Your task to perform on an android device: Open CNN.com Image 0: 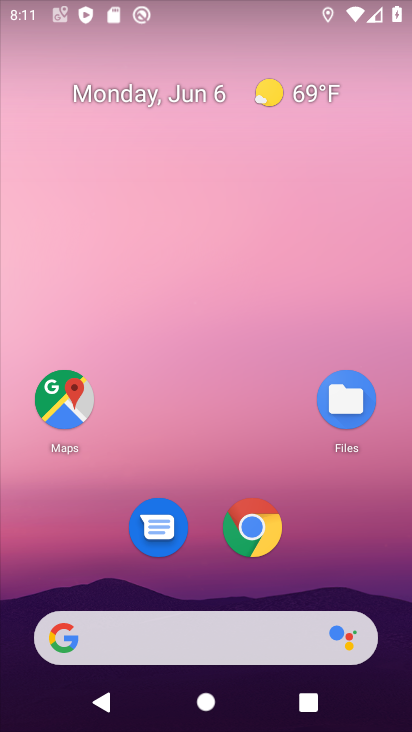
Step 0: drag from (295, 553) to (309, 20)
Your task to perform on an android device: Open CNN.com Image 1: 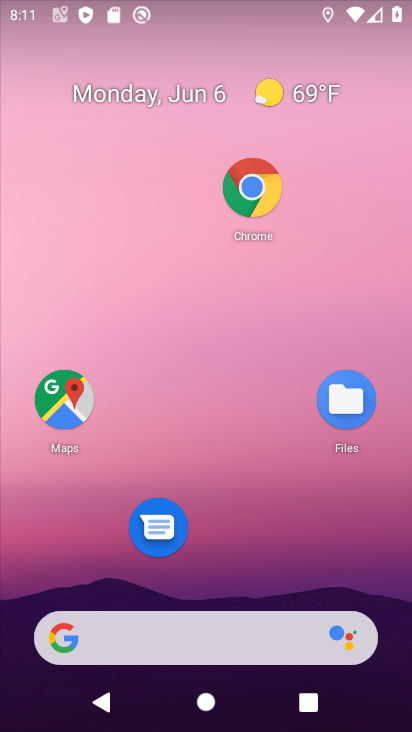
Step 1: drag from (206, 509) to (277, 0)
Your task to perform on an android device: Open CNN.com Image 2: 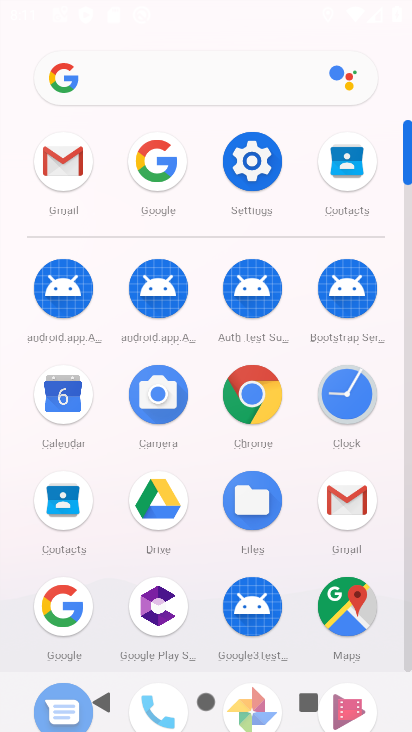
Step 2: click (152, 149)
Your task to perform on an android device: Open CNN.com Image 3: 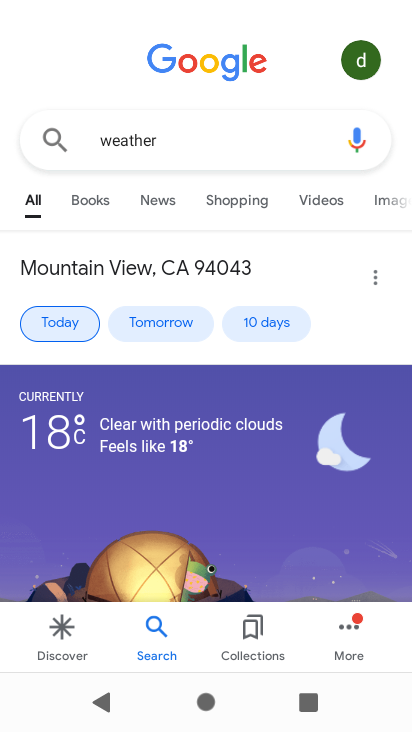
Step 3: click (238, 65)
Your task to perform on an android device: Open CNN.com Image 4: 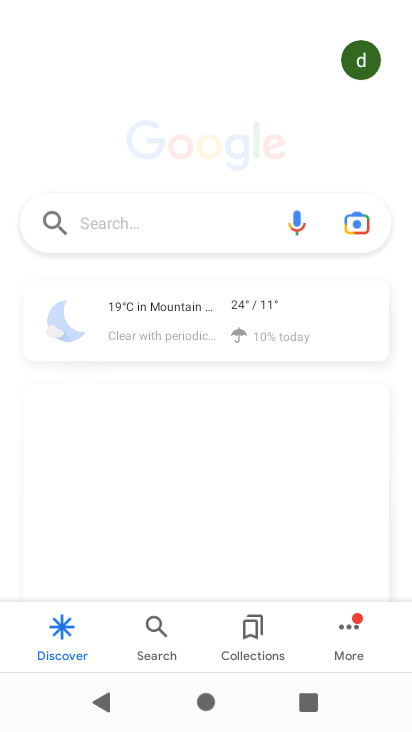
Step 4: click (253, 153)
Your task to perform on an android device: Open CNN.com Image 5: 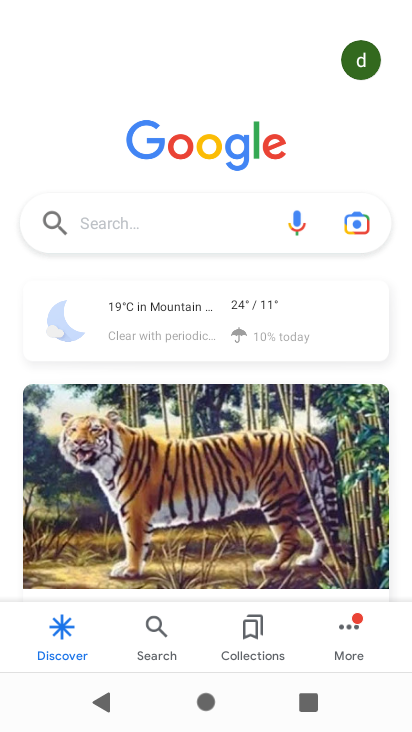
Step 5: click (240, 194)
Your task to perform on an android device: Open CNN.com Image 6: 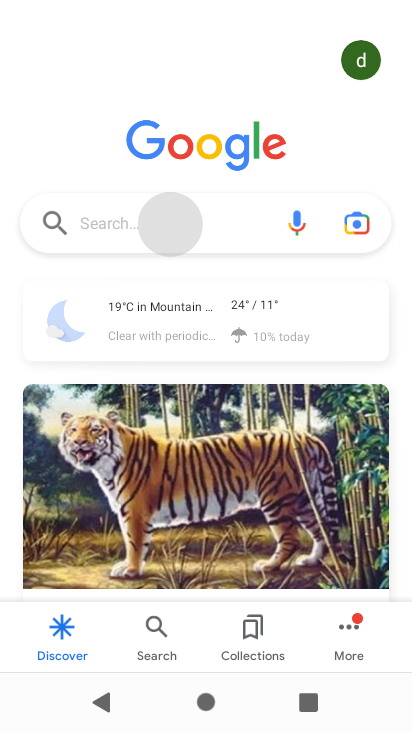
Step 6: click (233, 204)
Your task to perform on an android device: Open CNN.com Image 7: 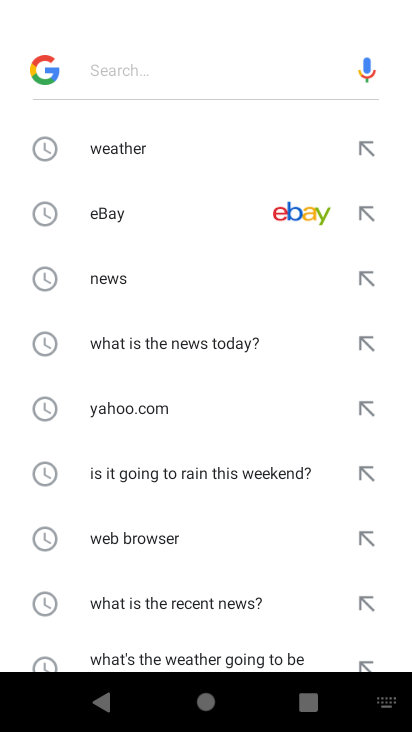
Step 7: drag from (167, 490) to (149, 130)
Your task to perform on an android device: Open CNN.com Image 8: 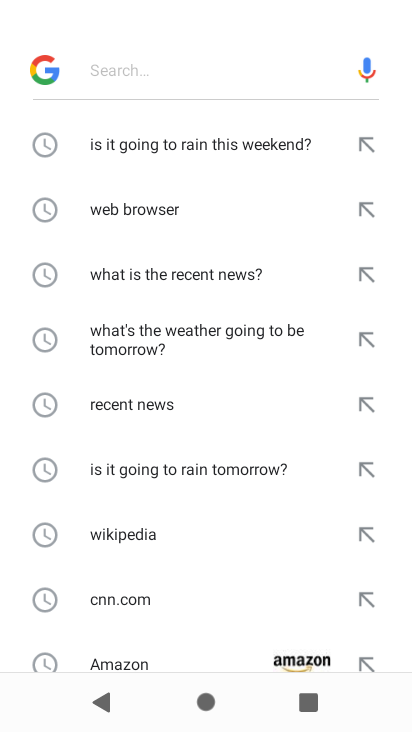
Step 8: click (168, 610)
Your task to perform on an android device: Open CNN.com Image 9: 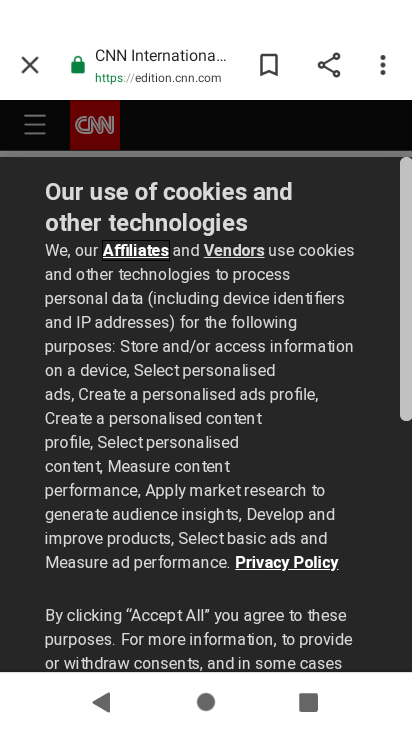
Step 9: task complete